Your task to perform on an android device: change the clock style Image 0: 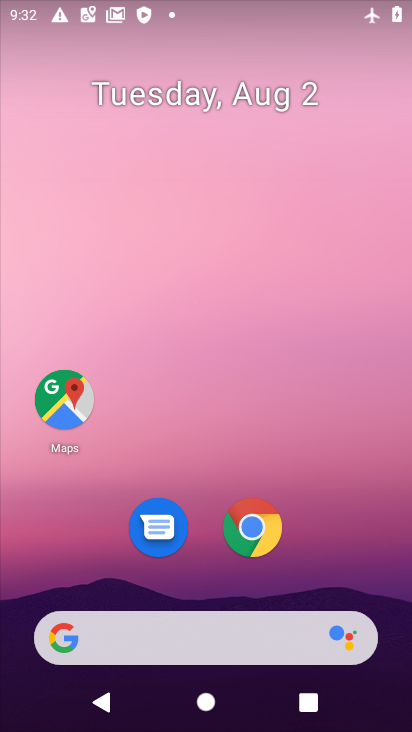
Step 0: drag from (266, 348) to (266, 433)
Your task to perform on an android device: change the clock style Image 1: 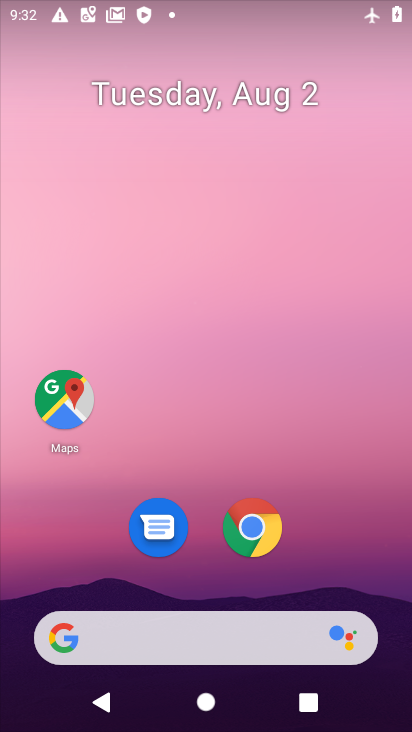
Step 1: drag from (313, 3) to (303, 390)
Your task to perform on an android device: change the clock style Image 2: 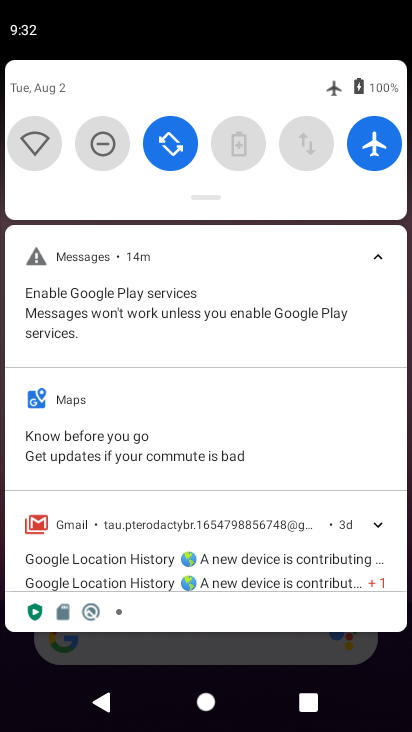
Step 2: click (362, 140)
Your task to perform on an android device: change the clock style Image 3: 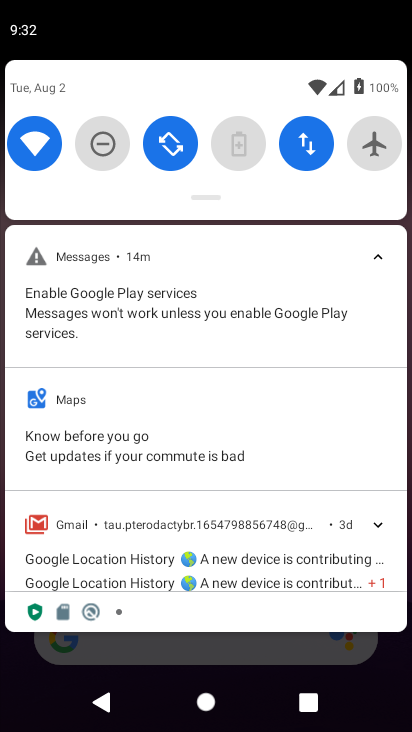
Step 3: click (299, 650)
Your task to perform on an android device: change the clock style Image 4: 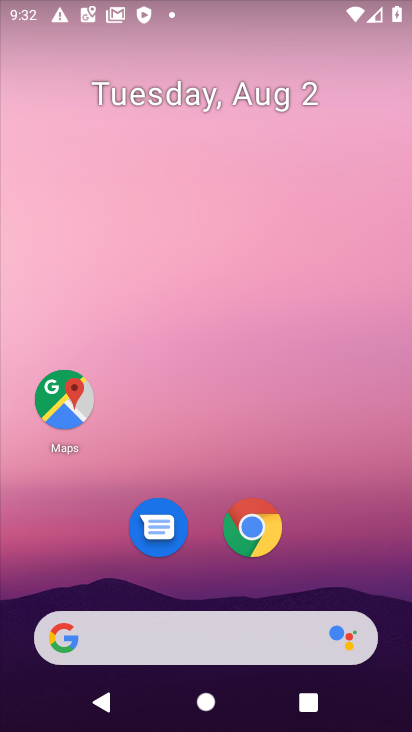
Step 4: drag from (202, 616) to (168, 235)
Your task to perform on an android device: change the clock style Image 5: 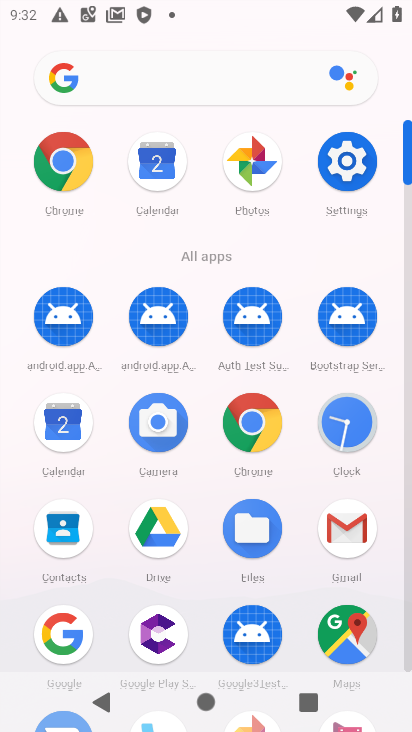
Step 5: click (355, 430)
Your task to perform on an android device: change the clock style Image 6: 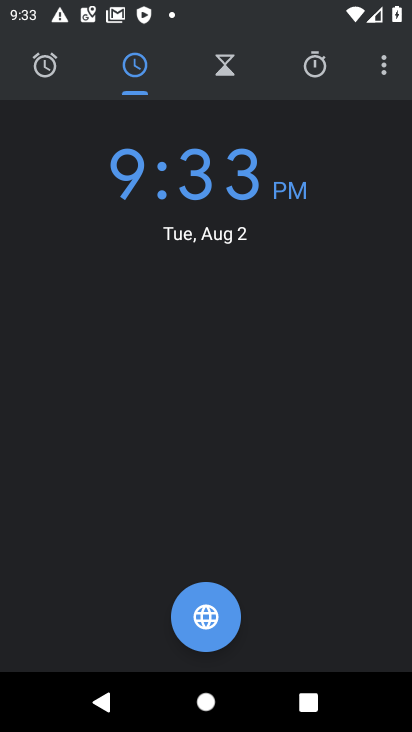
Step 6: click (383, 68)
Your task to perform on an android device: change the clock style Image 7: 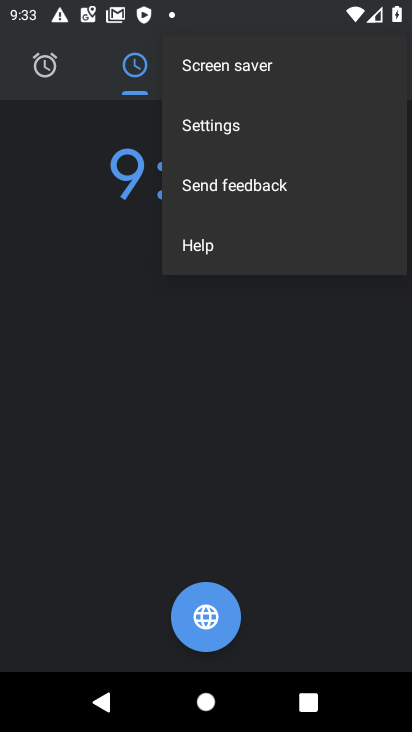
Step 7: click (211, 109)
Your task to perform on an android device: change the clock style Image 8: 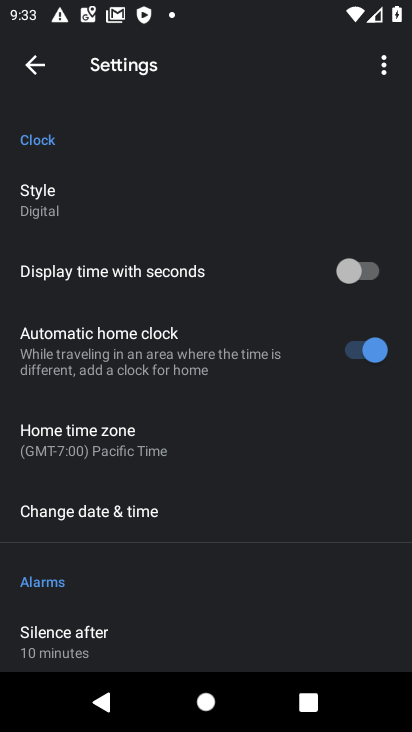
Step 8: click (34, 207)
Your task to perform on an android device: change the clock style Image 9: 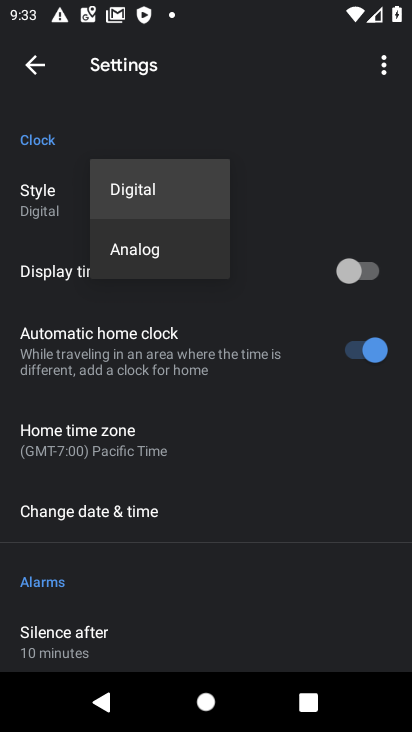
Step 9: click (101, 257)
Your task to perform on an android device: change the clock style Image 10: 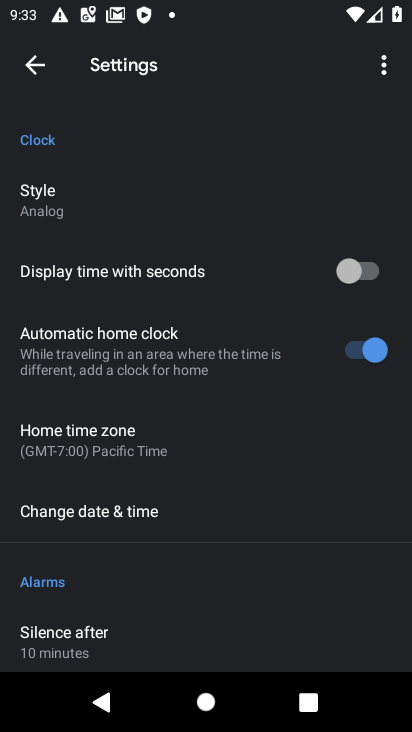
Step 10: task complete